Your task to perform on an android device: What's the news in the Dominican Republic? Image 0: 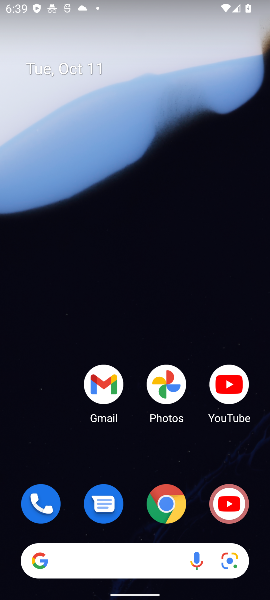
Step 0: click (94, 563)
Your task to perform on an android device: What's the news in the Dominican Republic? Image 1: 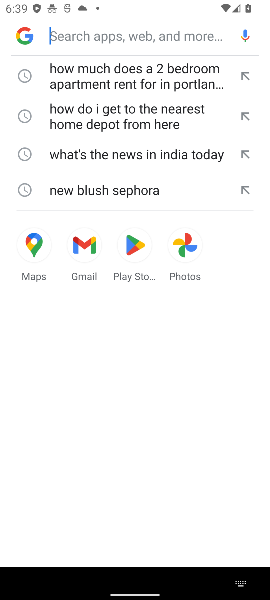
Step 1: click (108, 32)
Your task to perform on an android device: What's the news in the Dominican Republic? Image 2: 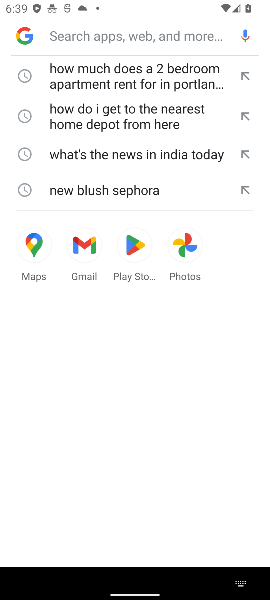
Step 2: type "What's the news in the Dominican Republic?"
Your task to perform on an android device: What's the news in the Dominican Republic? Image 3: 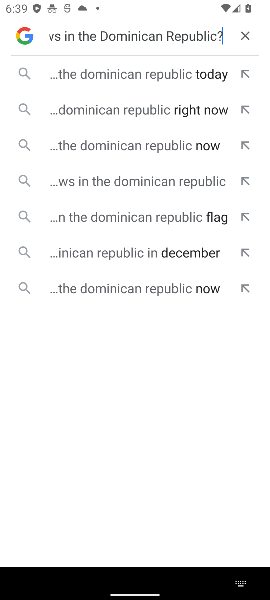
Step 3: click (125, 77)
Your task to perform on an android device: What's the news in the Dominican Republic? Image 4: 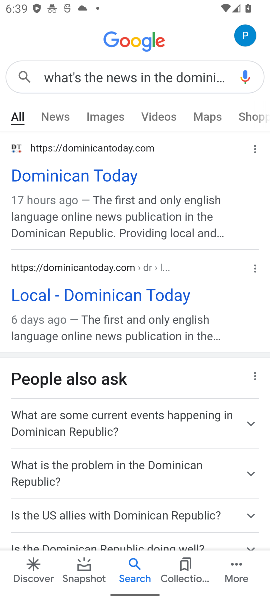
Step 4: task complete